Your task to perform on an android device: Go to CNN.com Image 0: 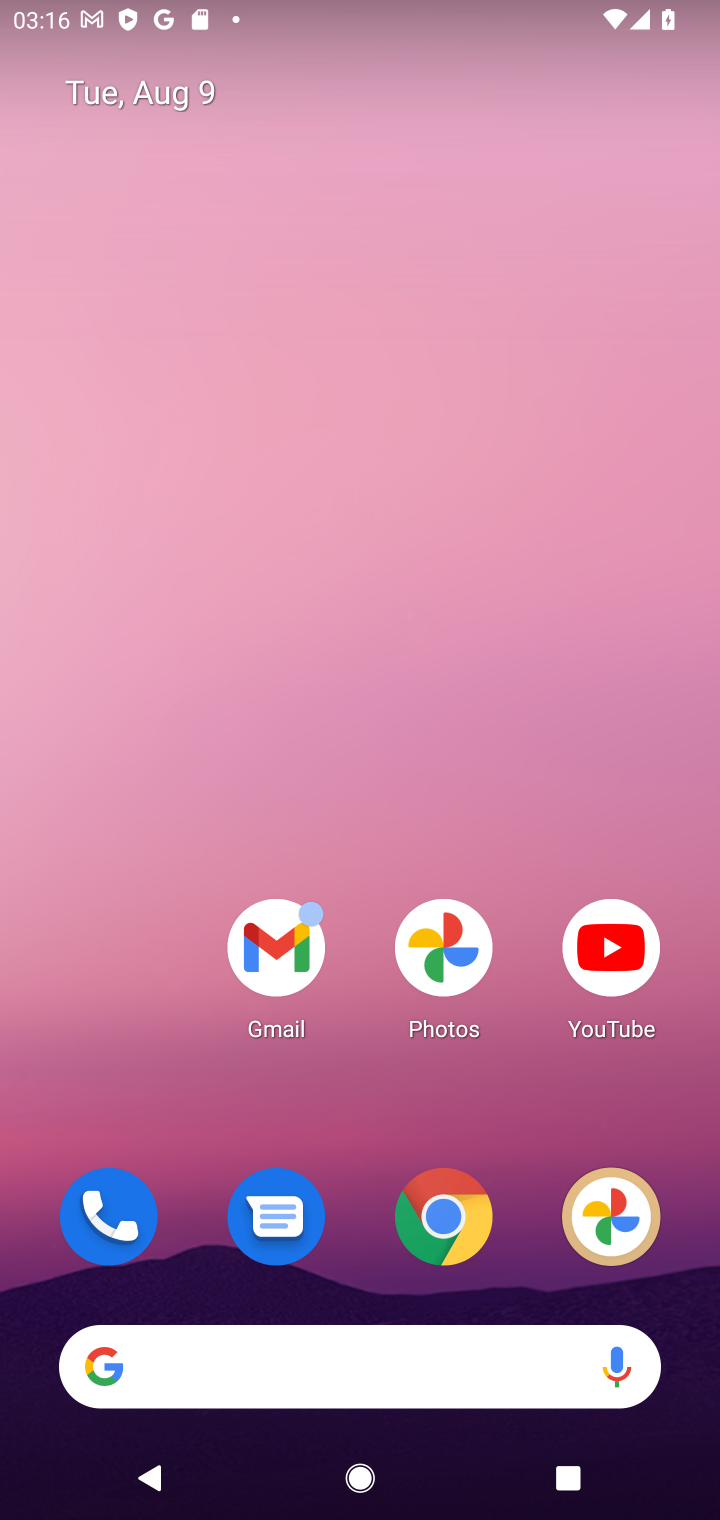
Step 0: click (445, 1205)
Your task to perform on an android device: Go to CNN.com Image 1: 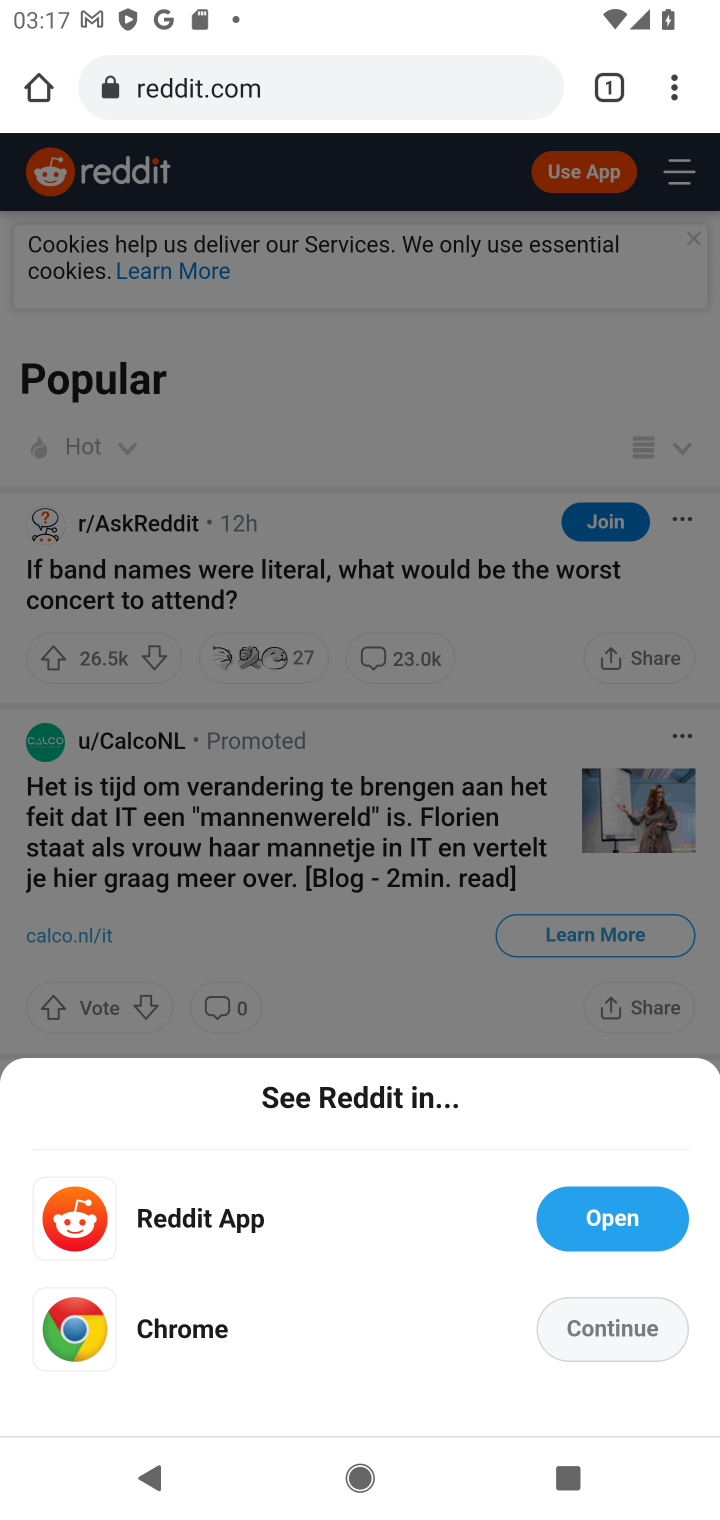
Step 1: click (322, 90)
Your task to perform on an android device: Go to CNN.com Image 2: 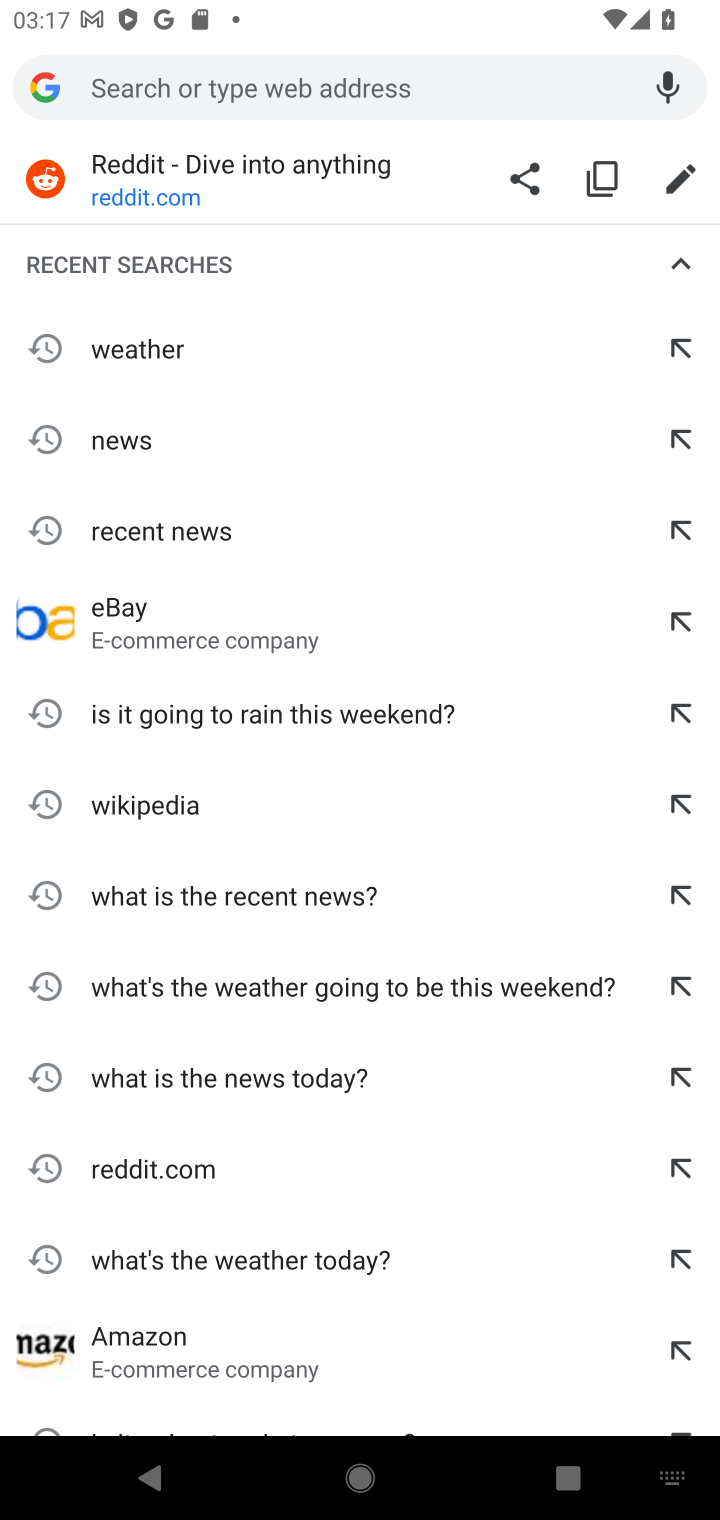
Step 2: type "cnn.com"
Your task to perform on an android device: Go to CNN.com Image 3: 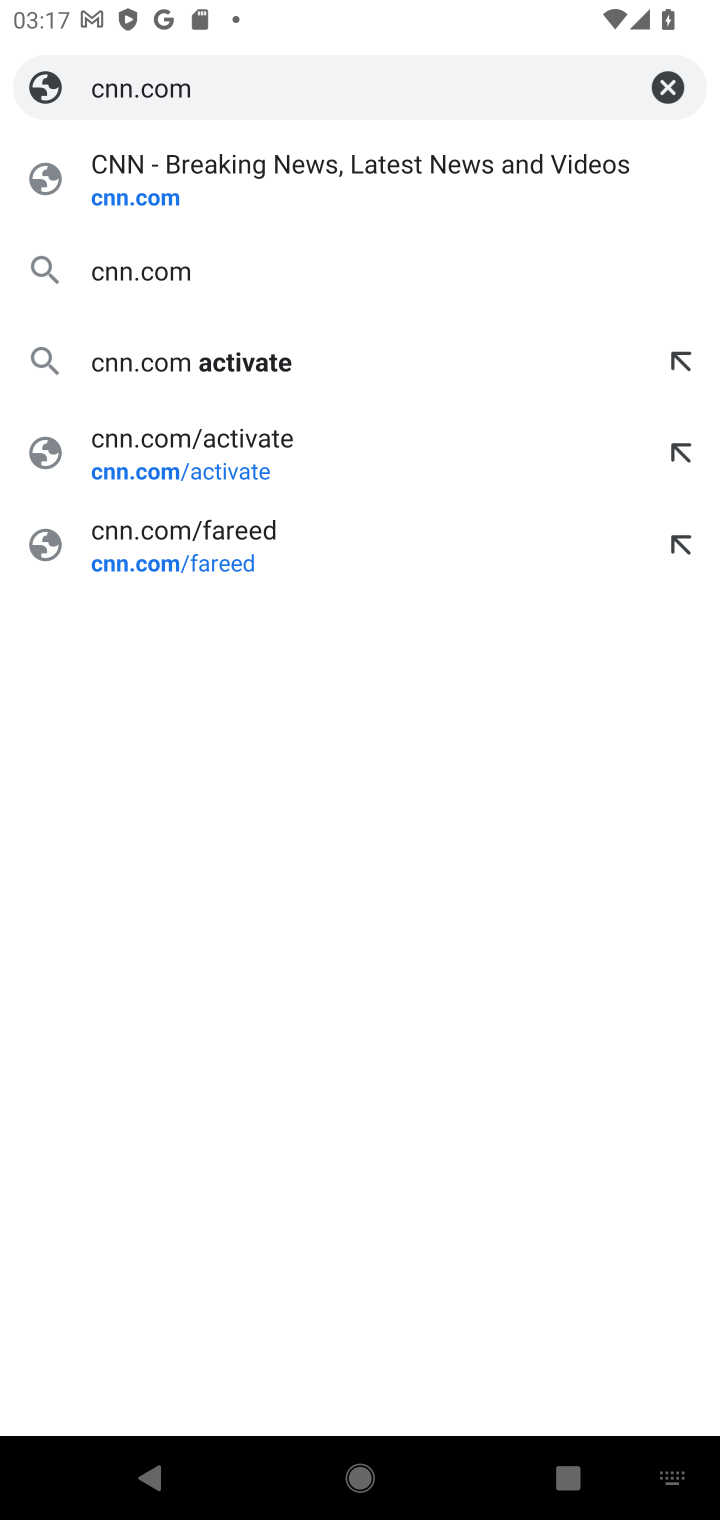
Step 3: click (329, 163)
Your task to perform on an android device: Go to CNN.com Image 4: 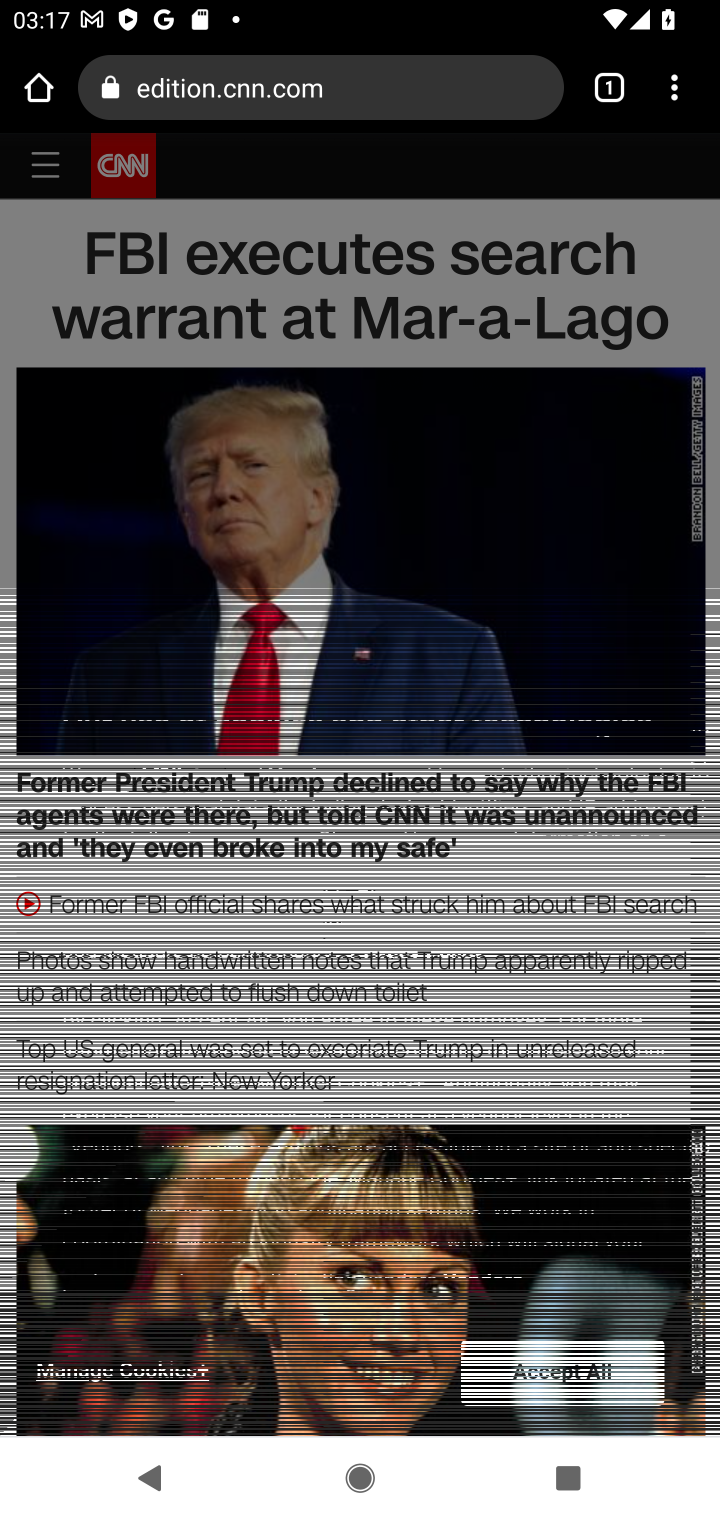
Step 4: task complete